Your task to perform on an android device: change notification settings in the gmail app Image 0: 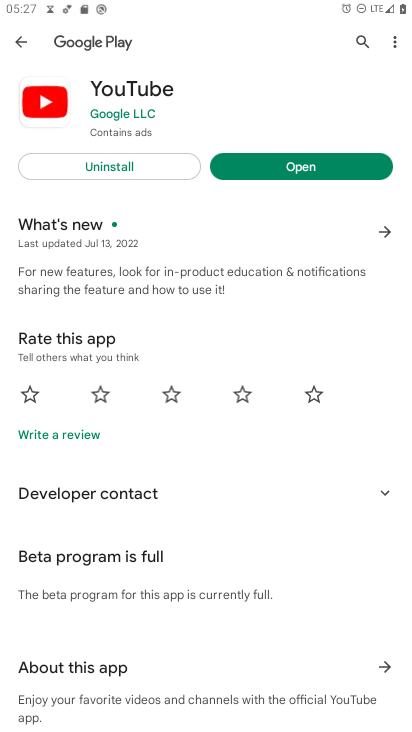
Step 0: press home button
Your task to perform on an android device: change notification settings in the gmail app Image 1: 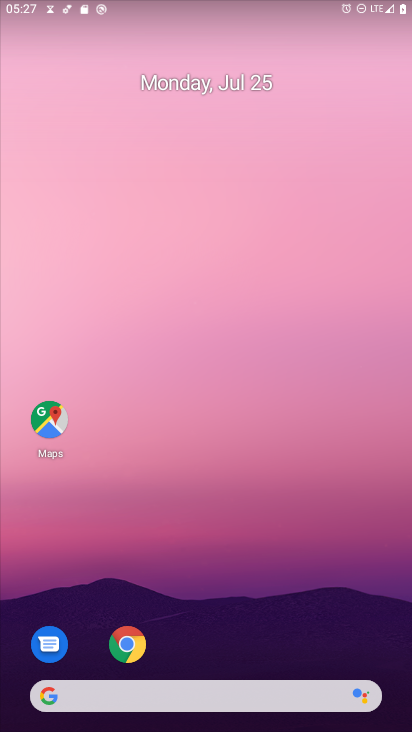
Step 1: drag from (292, 611) to (322, 32)
Your task to perform on an android device: change notification settings in the gmail app Image 2: 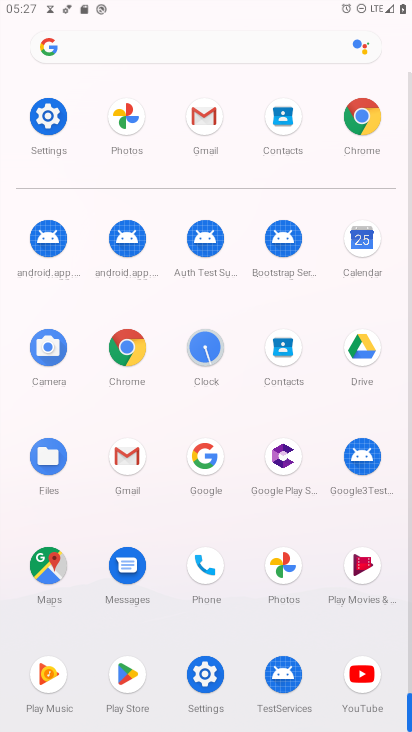
Step 2: click (207, 130)
Your task to perform on an android device: change notification settings in the gmail app Image 3: 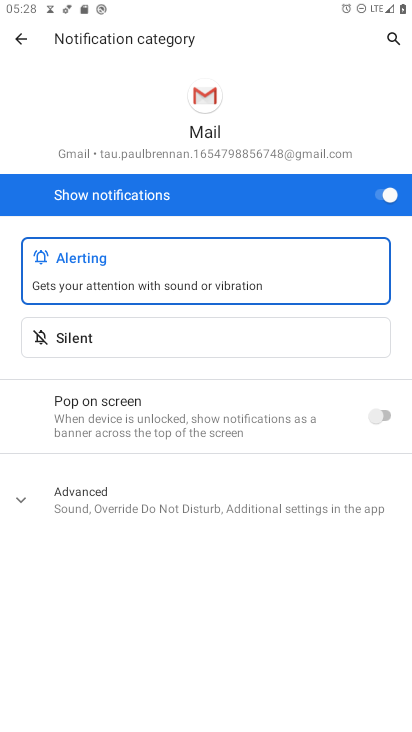
Step 3: click (394, 197)
Your task to perform on an android device: change notification settings in the gmail app Image 4: 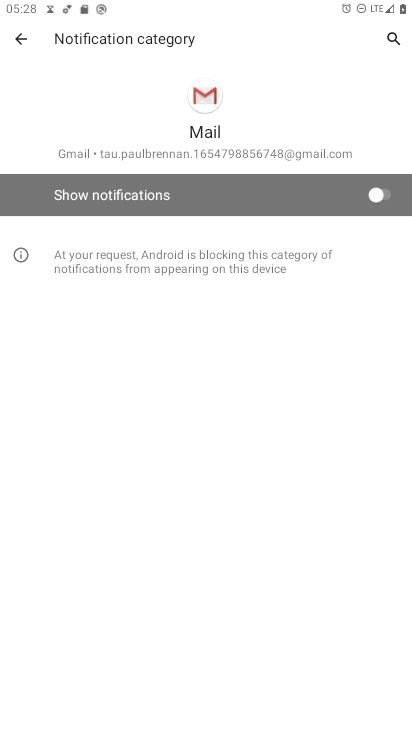
Step 4: task complete